Your task to perform on an android device: check battery use Image 0: 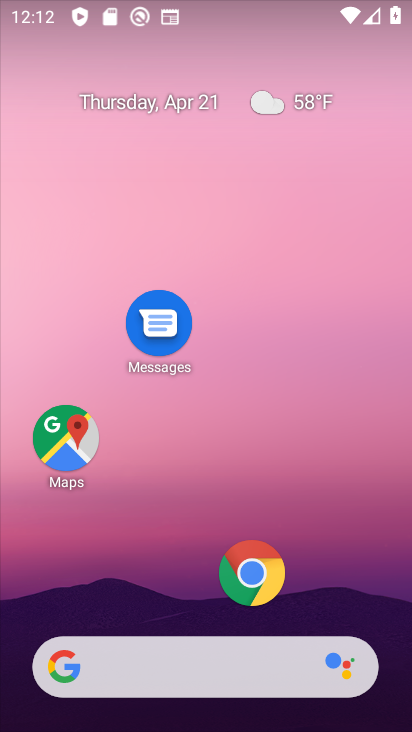
Step 0: drag from (170, 547) to (231, 27)
Your task to perform on an android device: check battery use Image 1: 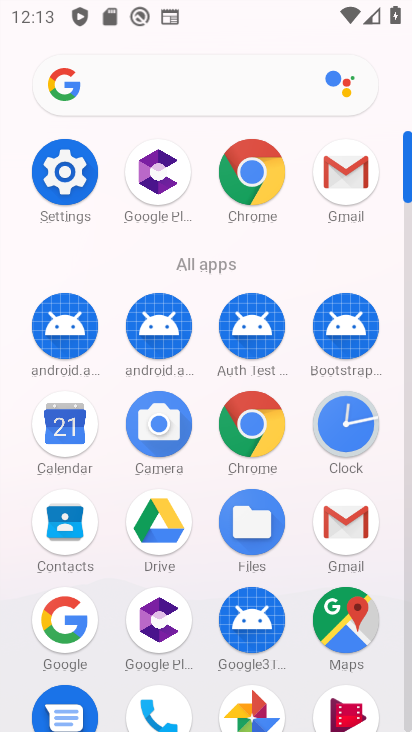
Step 1: click (67, 172)
Your task to perform on an android device: check battery use Image 2: 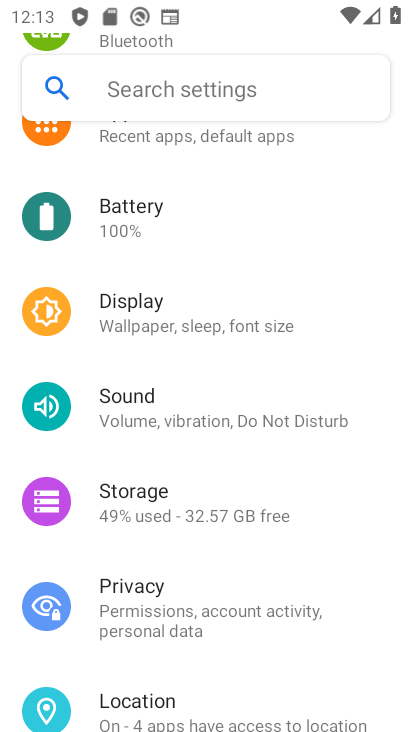
Step 2: click (131, 219)
Your task to perform on an android device: check battery use Image 3: 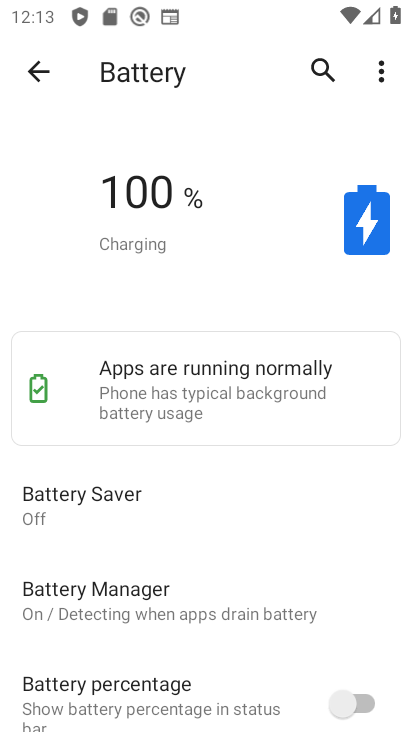
Step 3: task complete